Your task to perform on an android device: What's the weather today? Image 0: 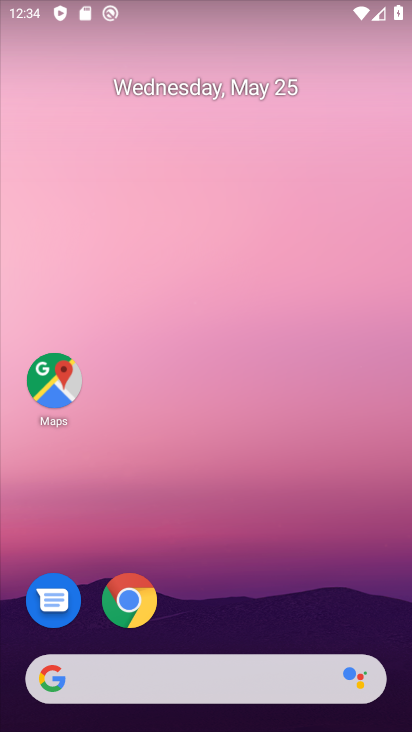
Step 0: drag from (218, 601) to (152, 62)
Your task to perform on an android device: What's the weather today? Image 1: 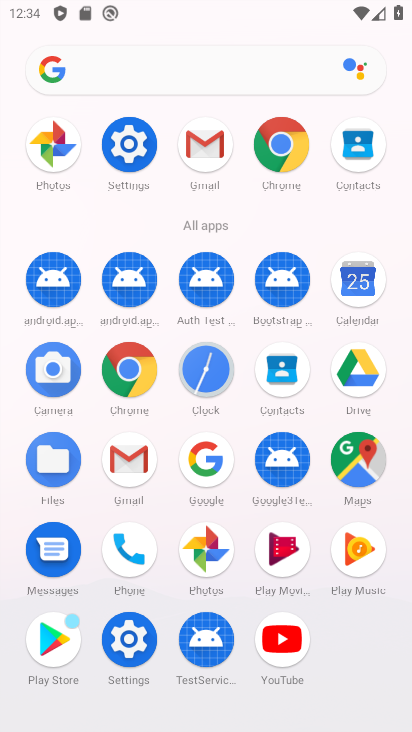
Step 1: click (283, 160)
Your task to perform on an android device: What's the weather today? Image 2: 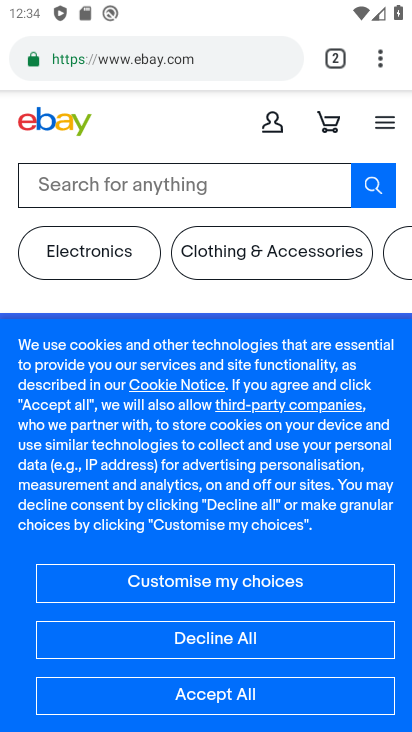
Step 2: click (204, 53)
Your task to perform on an android device: What's the weather today? Image 3: 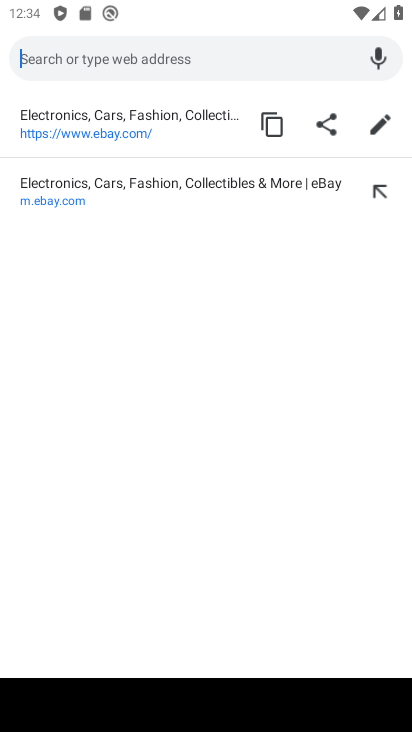
Step 3: type "What's the weather today?"
Your task to perform on an android device: What's the weather today? Image 4: 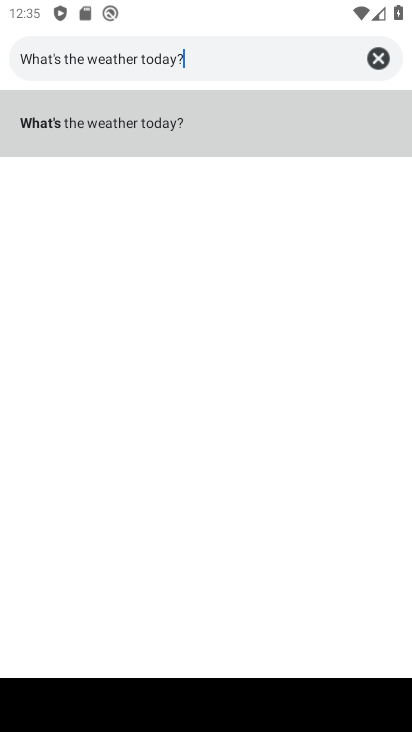
Step 4: click (142, 127)
Your task to perform on an android device: What's the weather today? Image 5: 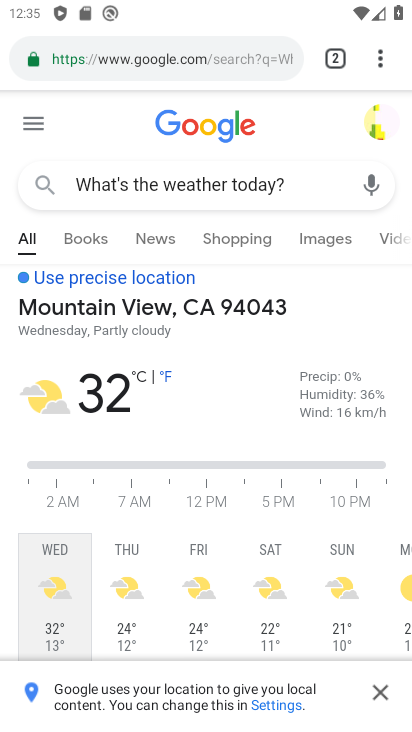
Step 5: task complete